Your task to perform on an android device: install app "Cash App" Image 0: 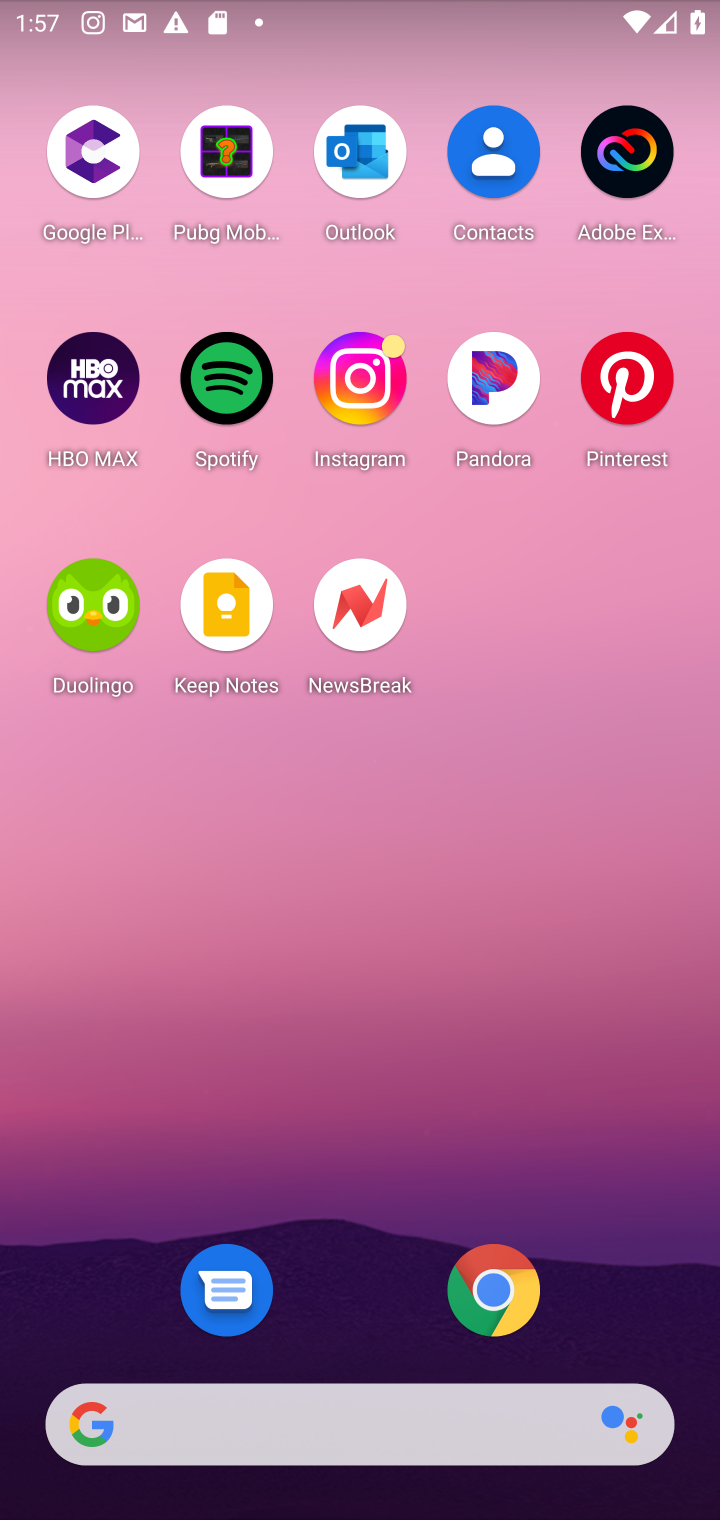
Step 0: press home button
Your task to perform on an android device: install app "Cash App" Image 1: 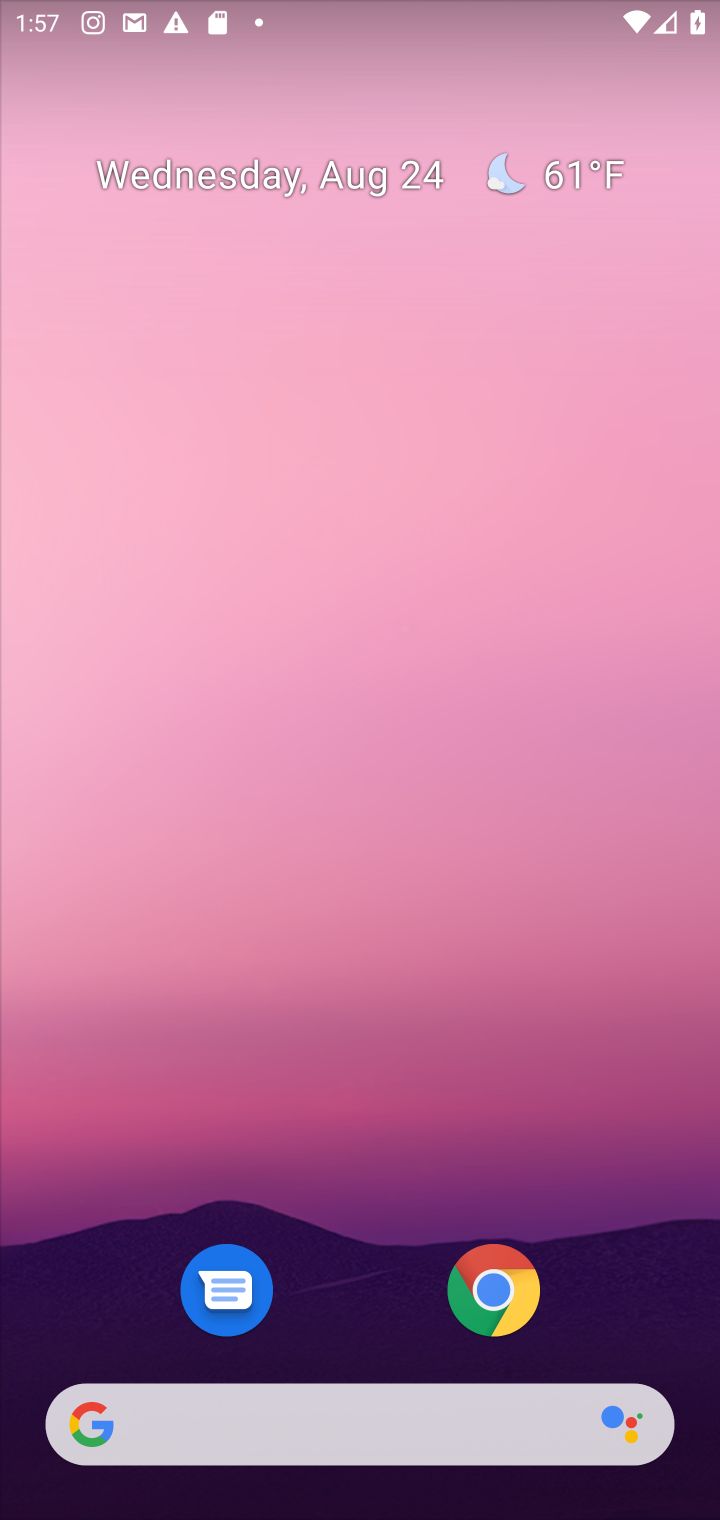
Step 1: drag from (349, 1281) to (440, 47)
Your task to perform on an android device: install app "Cash App" Image 2: 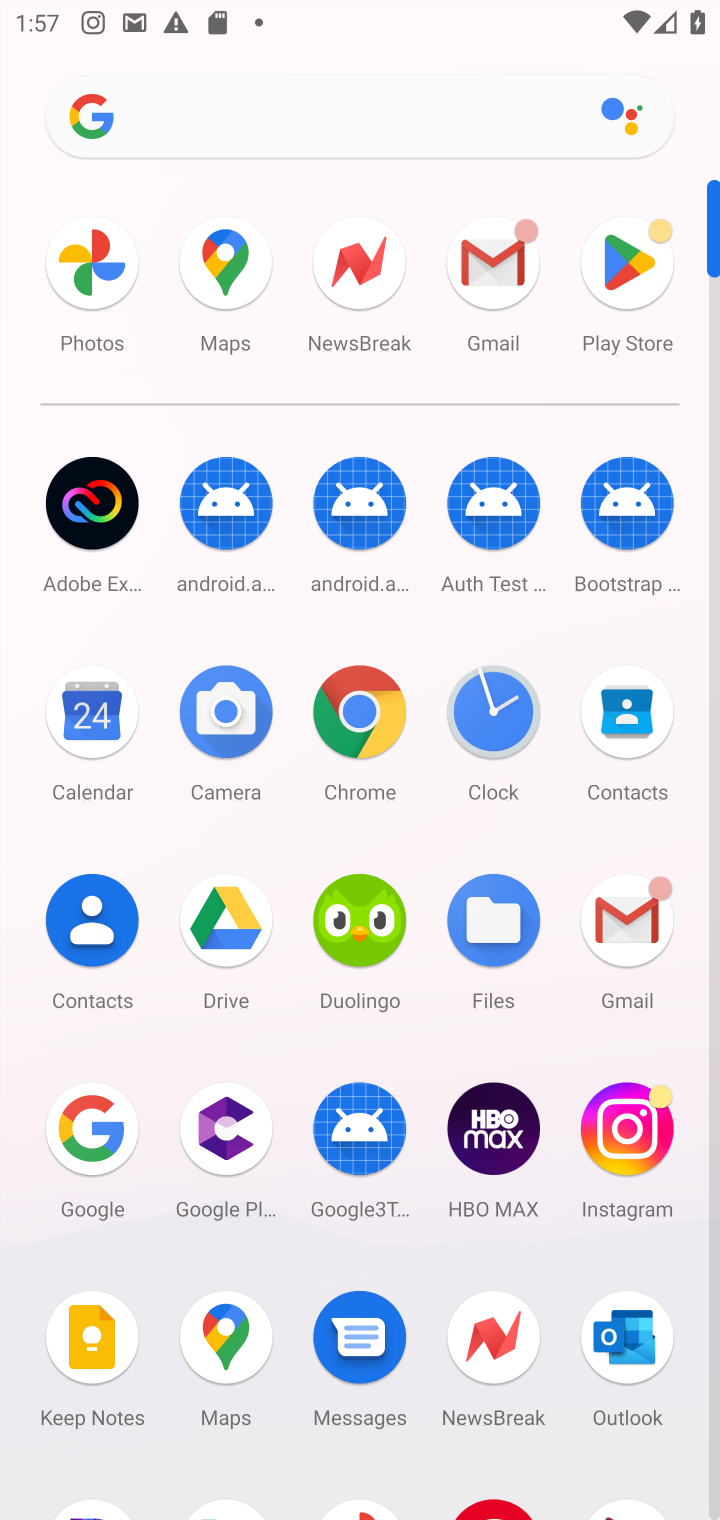
Step 2: click (630, 273)
Your task to perform on an android device: install app "Cash App" Image 3: 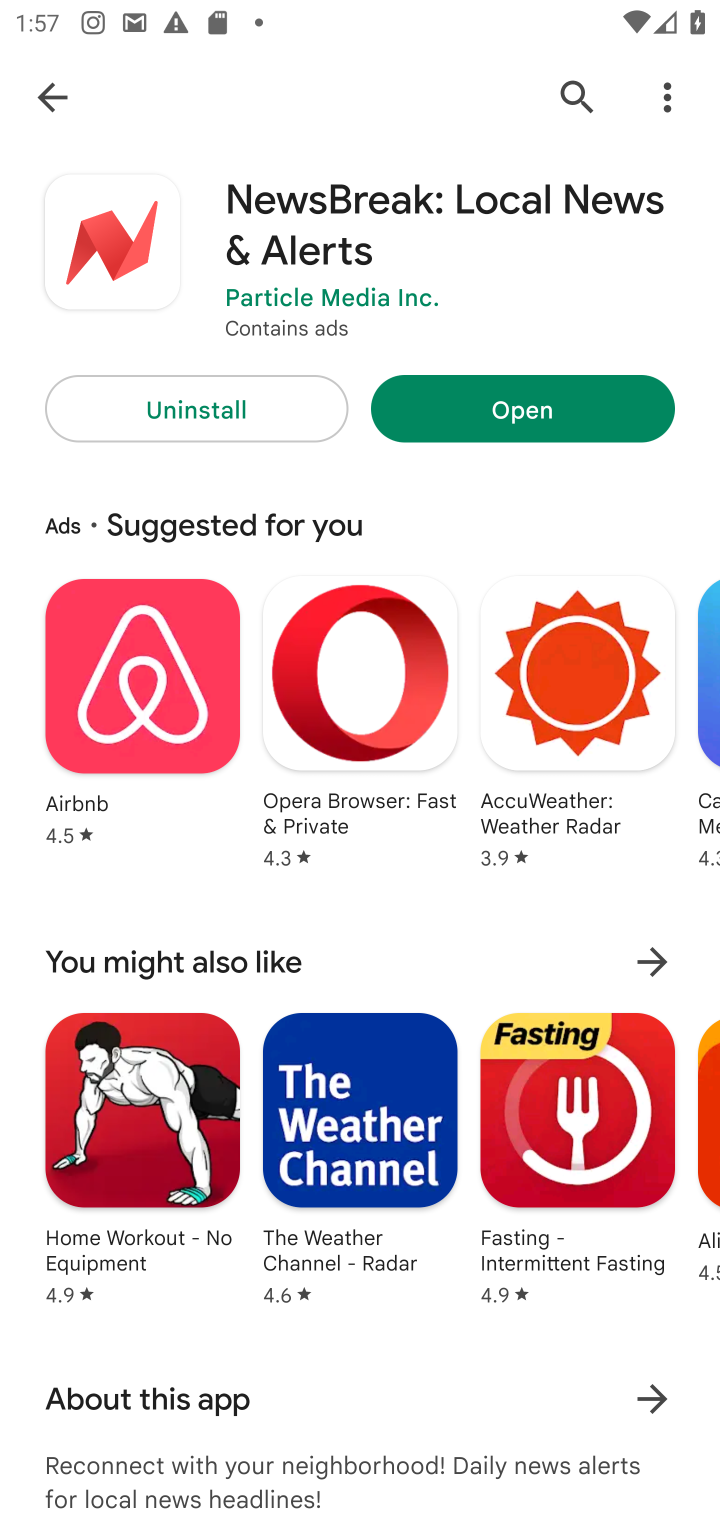
Step 3: click (44, 92)
Your task to perform on an android device: install app "Cash App" Image 4: 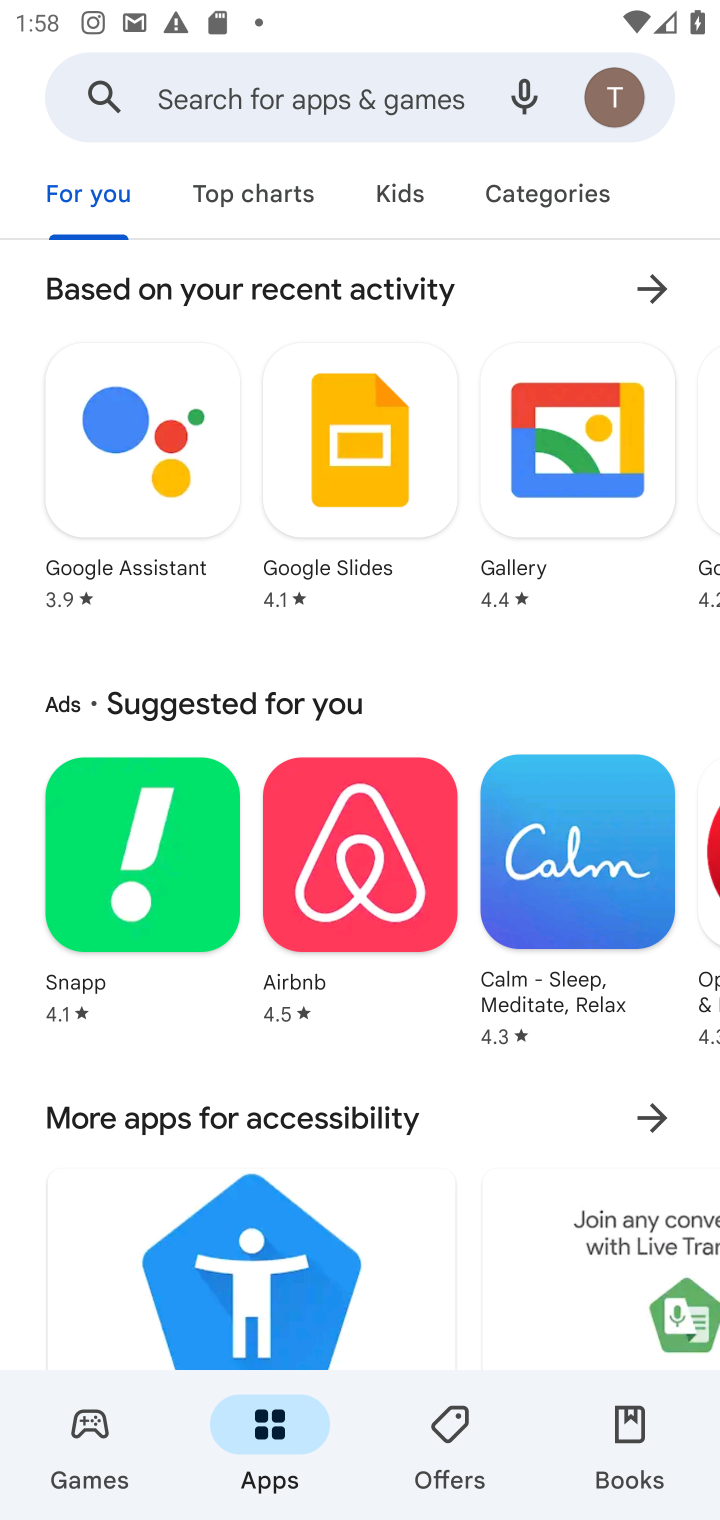
Step 4: click (230, 86)
Your task to perform on an android device: install app "Cash App" Image 5: 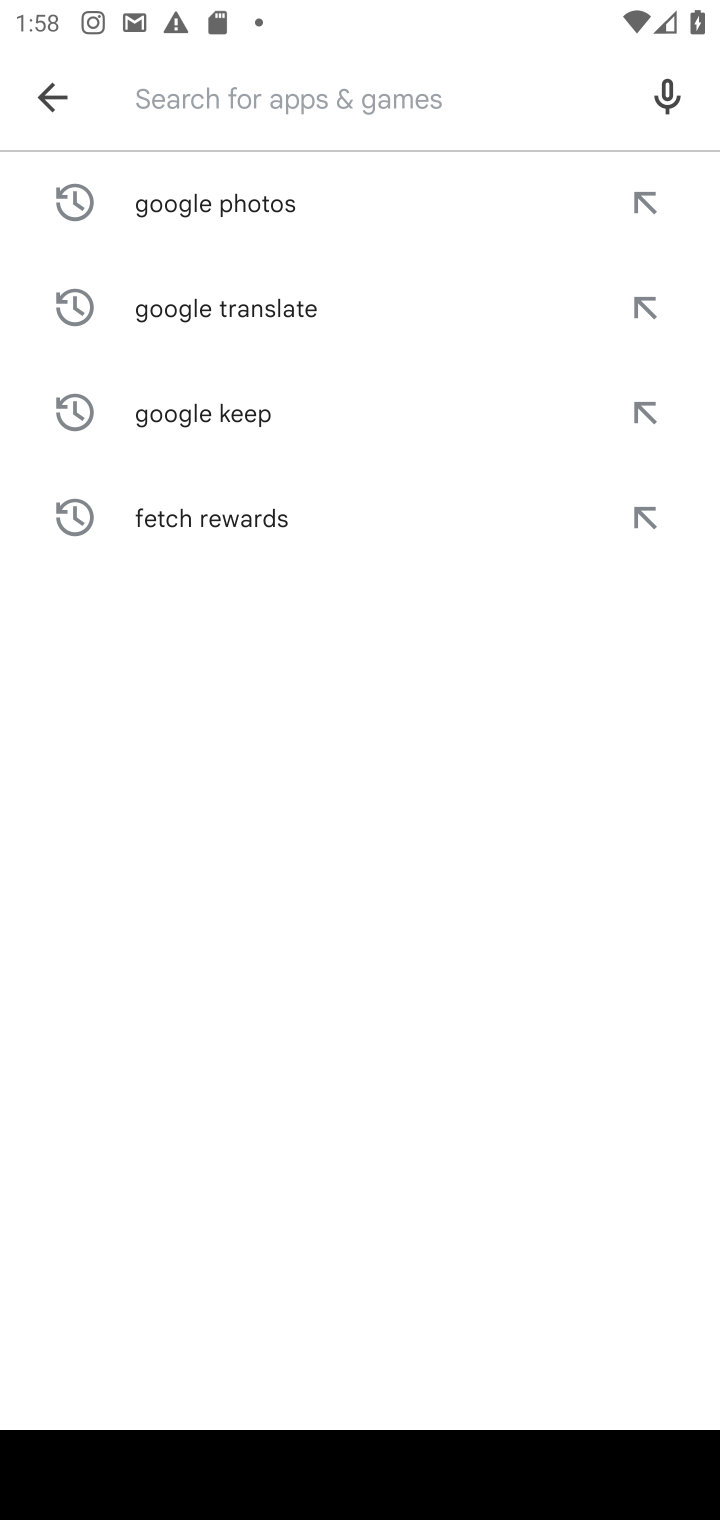
Step 5: type "Cash App"
Your task to perform on an android device: install app "Cash App" Image 6: 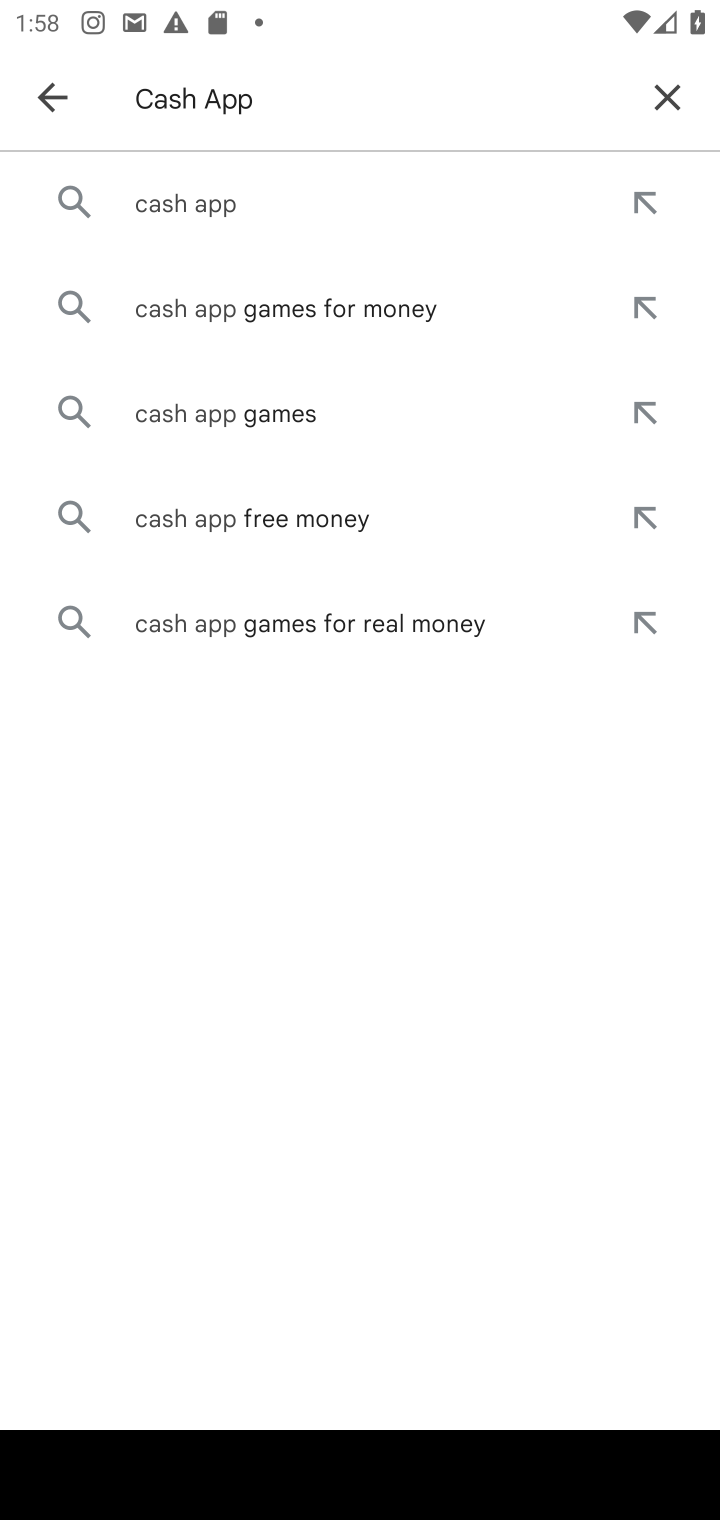
Step 6: click (165, 206)
Your task to perform on an android device: install app "Cash App" Image 7: 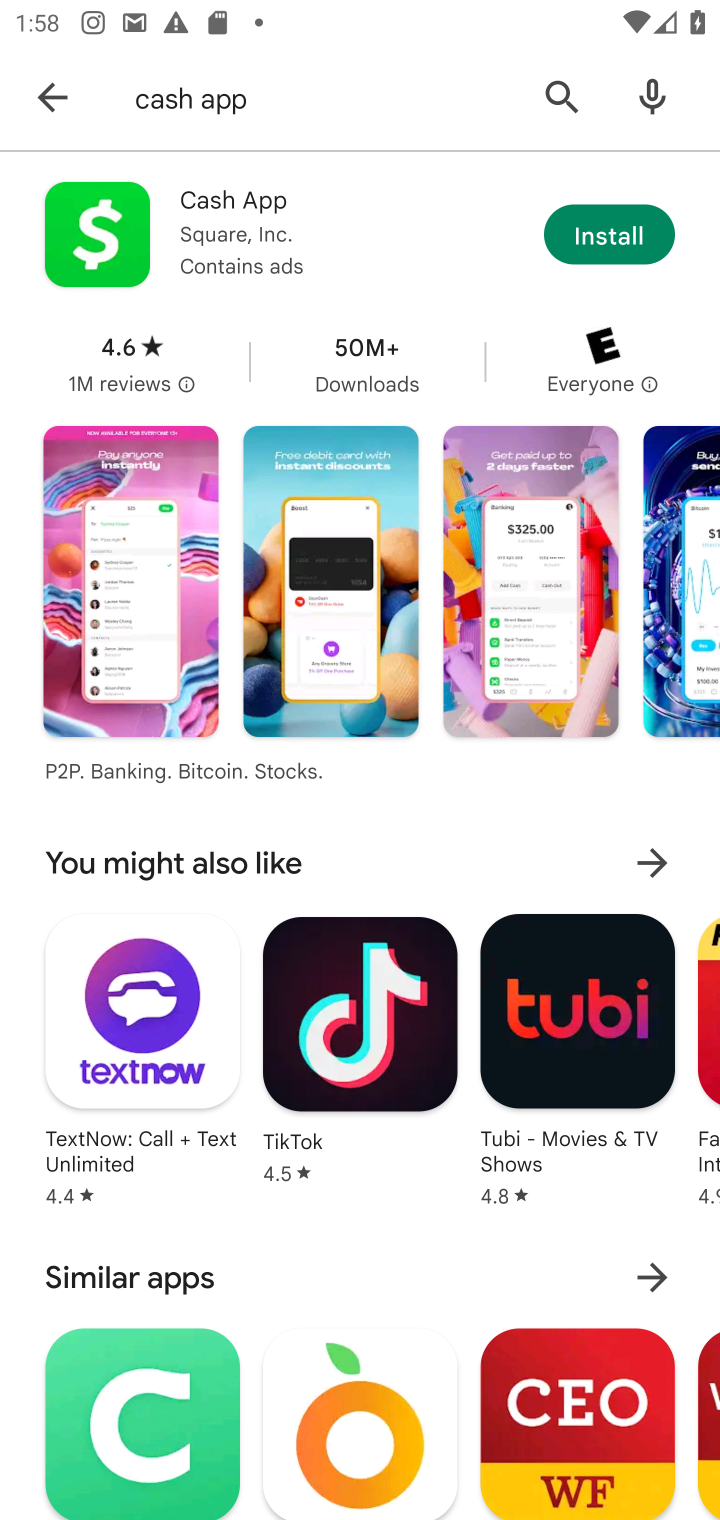
Step 7: click (635, 214)
Your task to perform on an android device: install app "Cash App" Image 8: 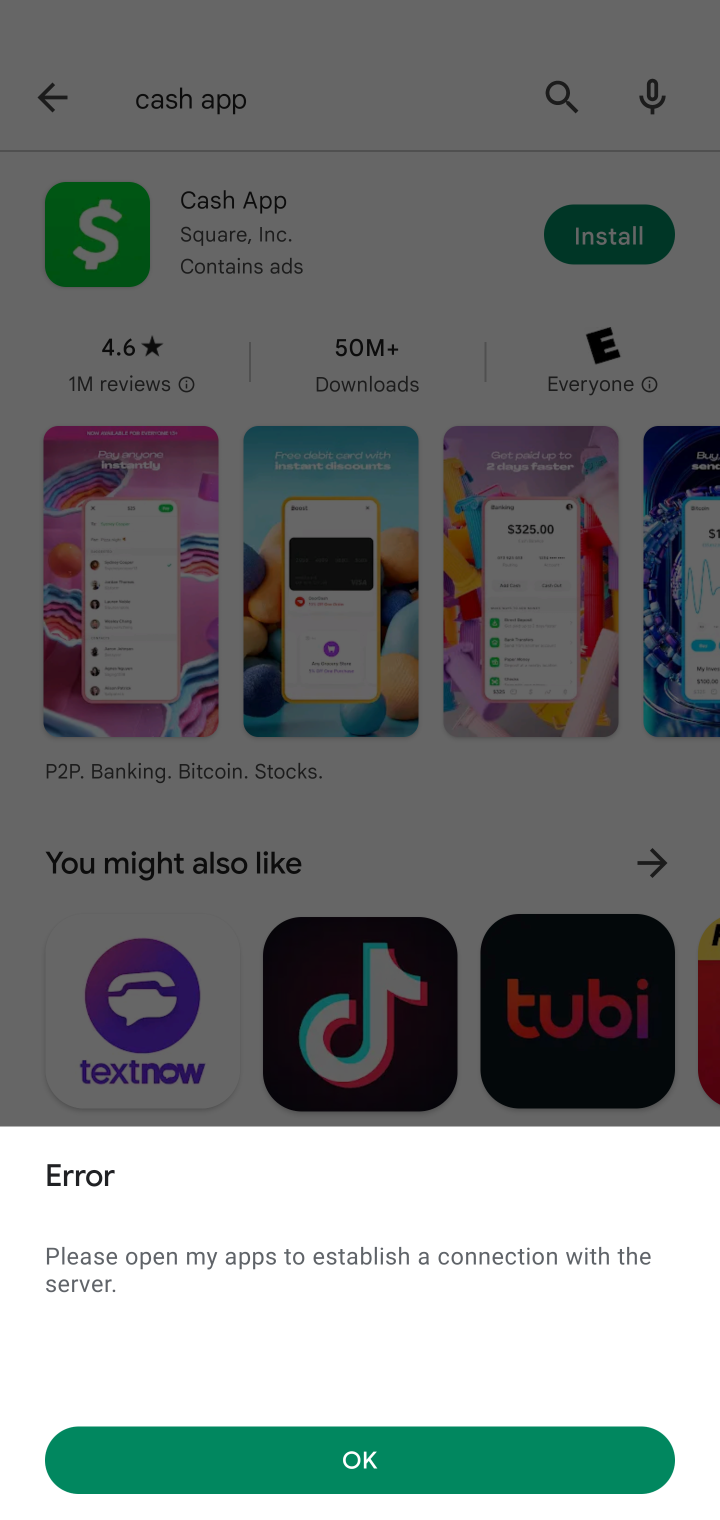
Step 8: click (378, 1467)
Your task to perform on an android device: install app "Cash App" Image 9: 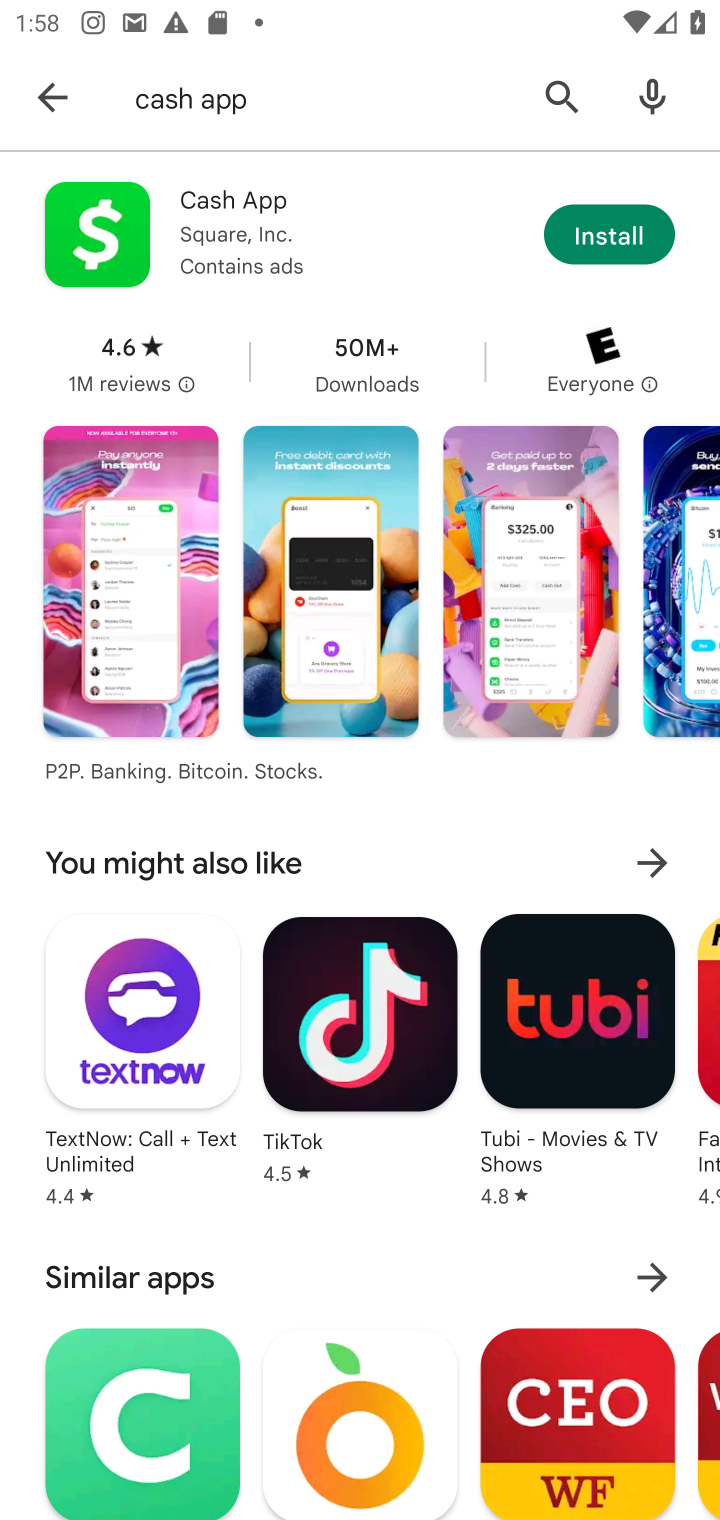
Step 9: click (615, 224)
Your task to perform on an android device: install app "Cash App" Image 10: 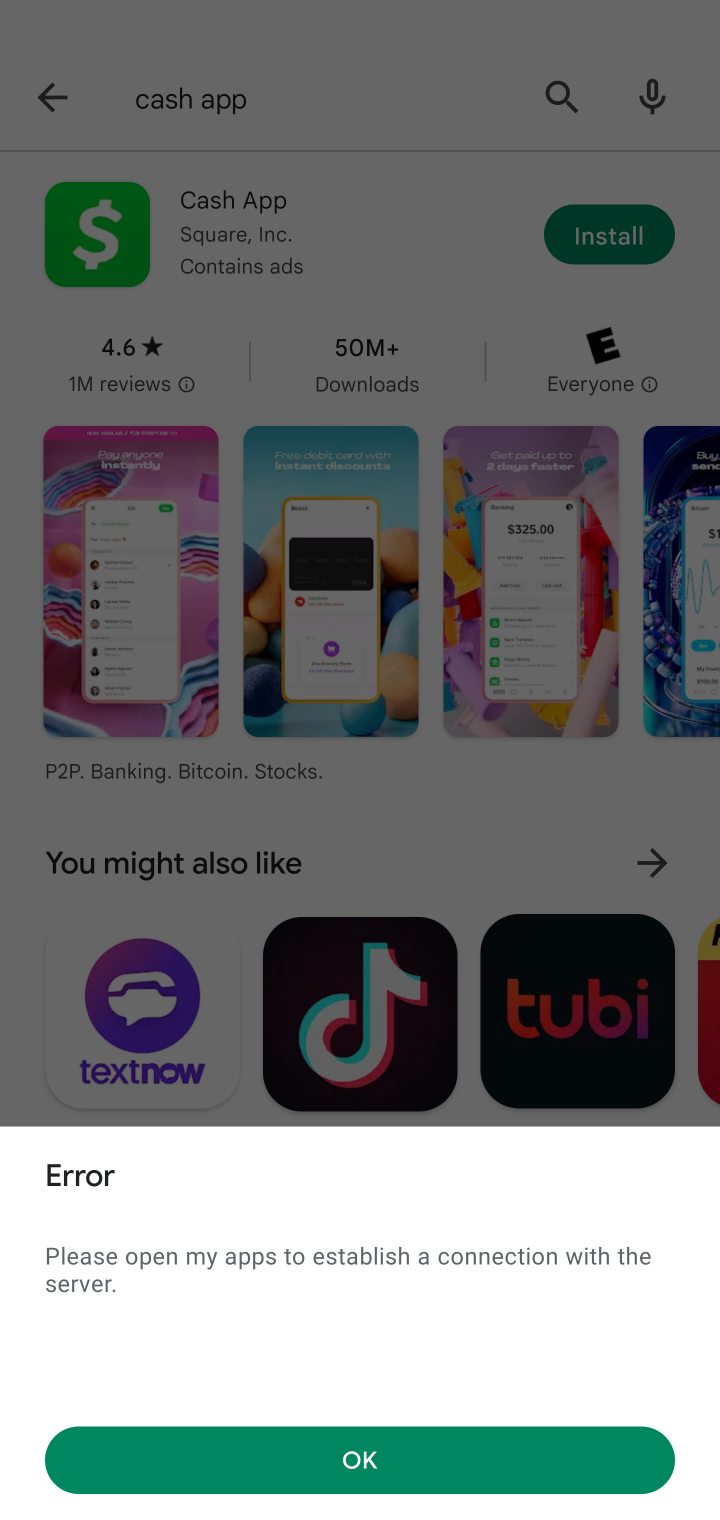
Step 10: click (345, 1466)
Your task to perform on an android device: install app "Cash App" Image 11: 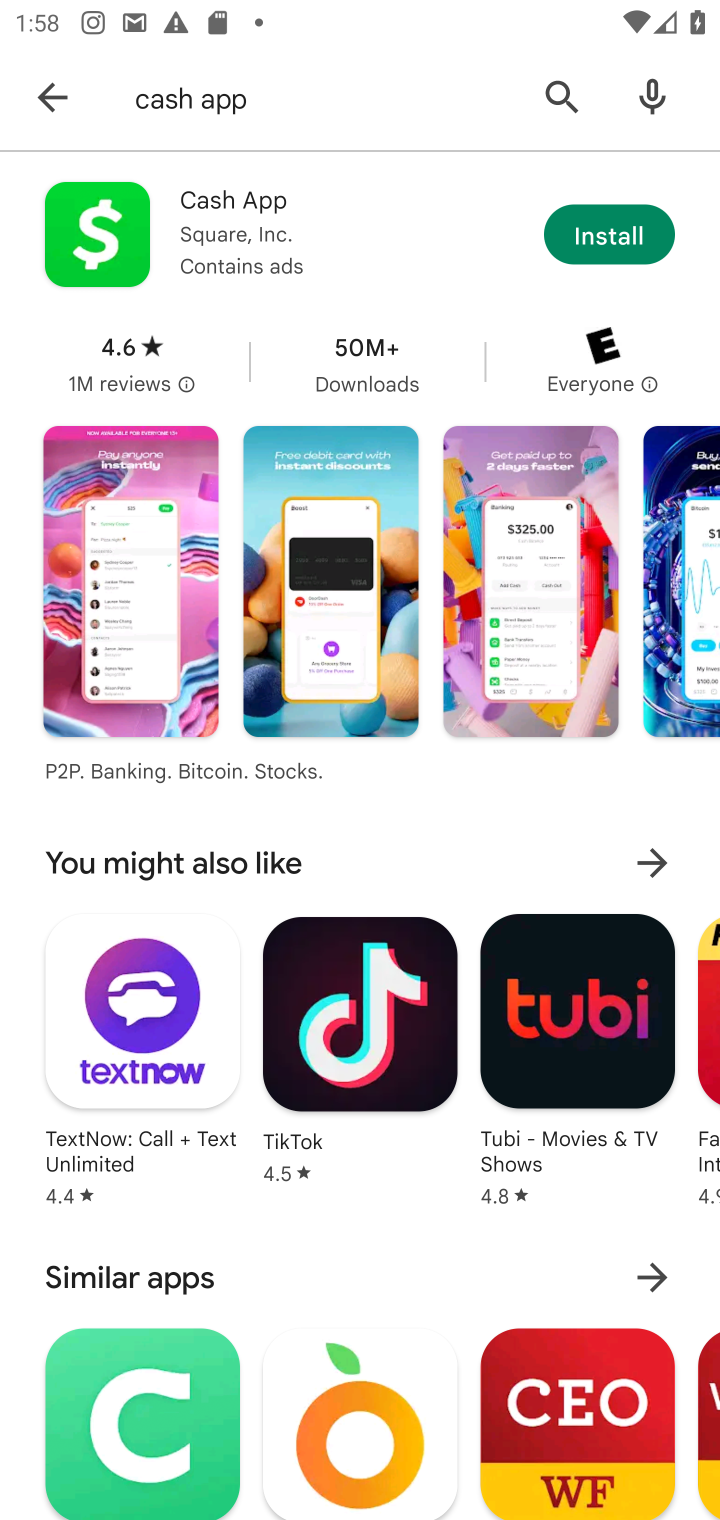
Step 11: task complete